Your task to perform on an android device: Go to CNN.com Image 0: 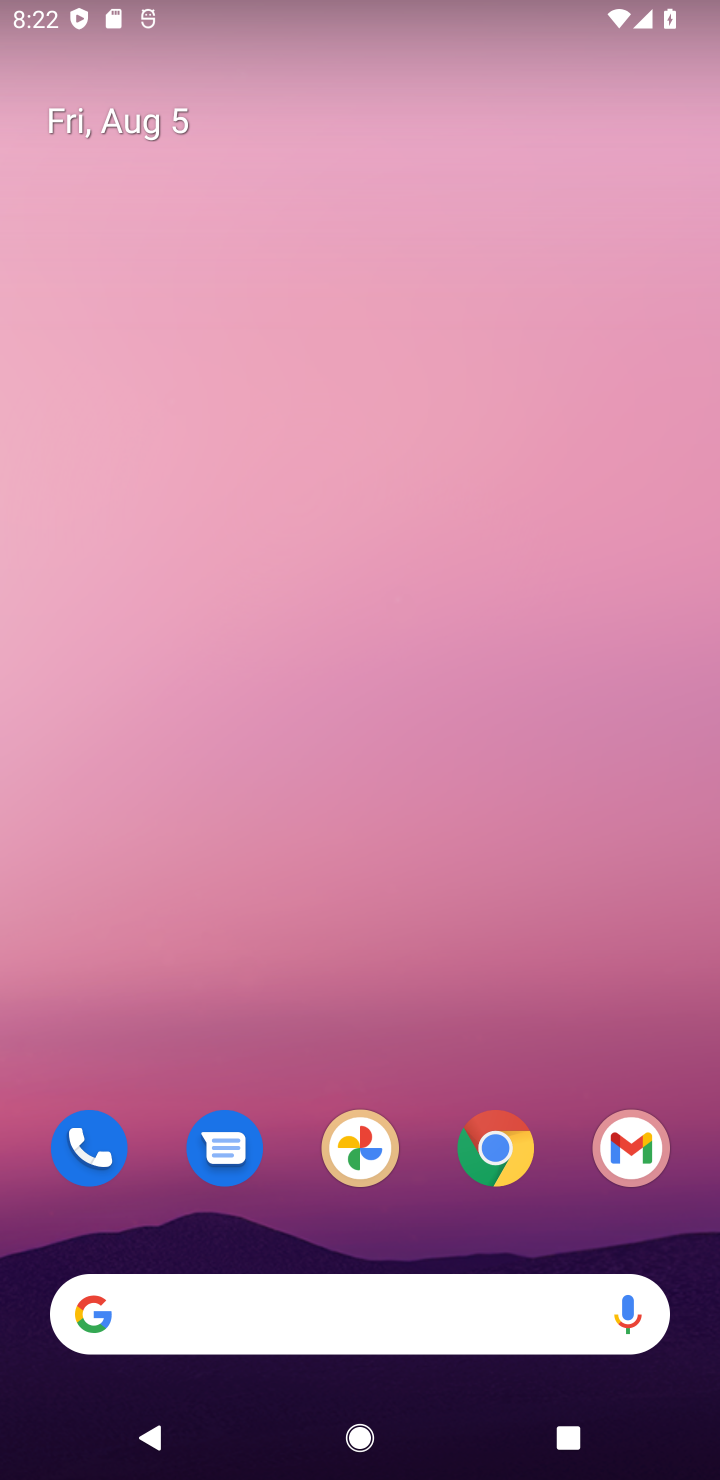
Step 0: drag from (420, 1252) to (421, 216)
Your task to perform on an android device: Go to CNN.com Image 1: 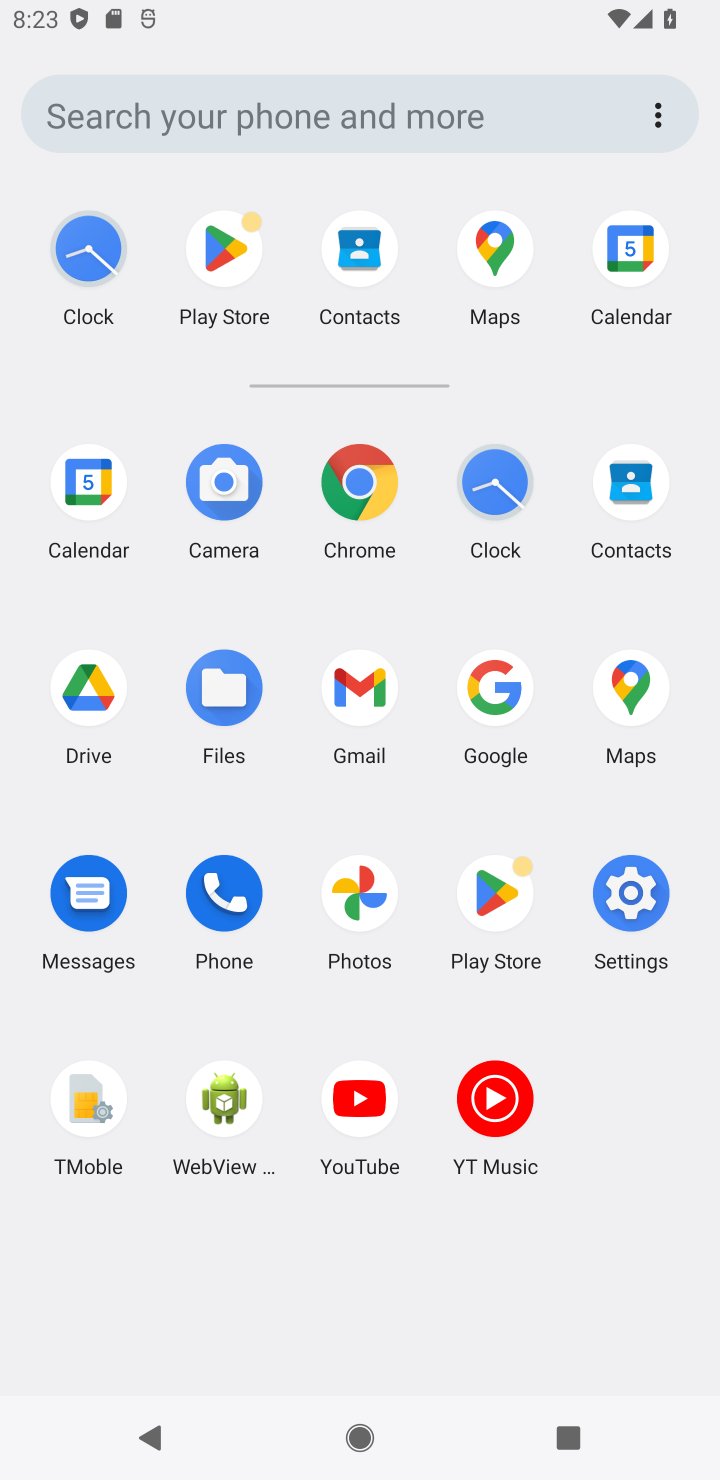
Step 1: click (374, 492)
Your task to perform on an android device: Go to CNN.com Image 2: 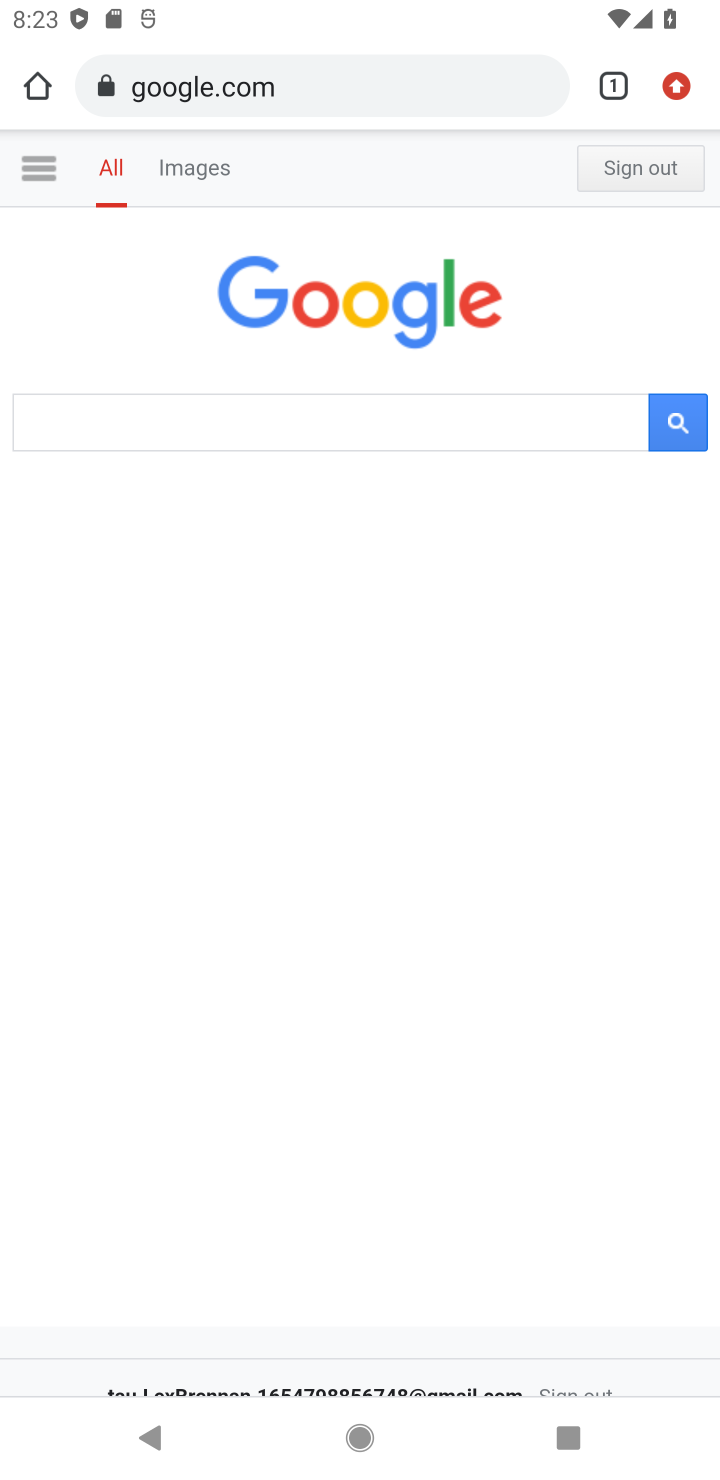
Step 2: click (374, 85)
Your task to perform on an android device: Go to CNN.com Image 3: 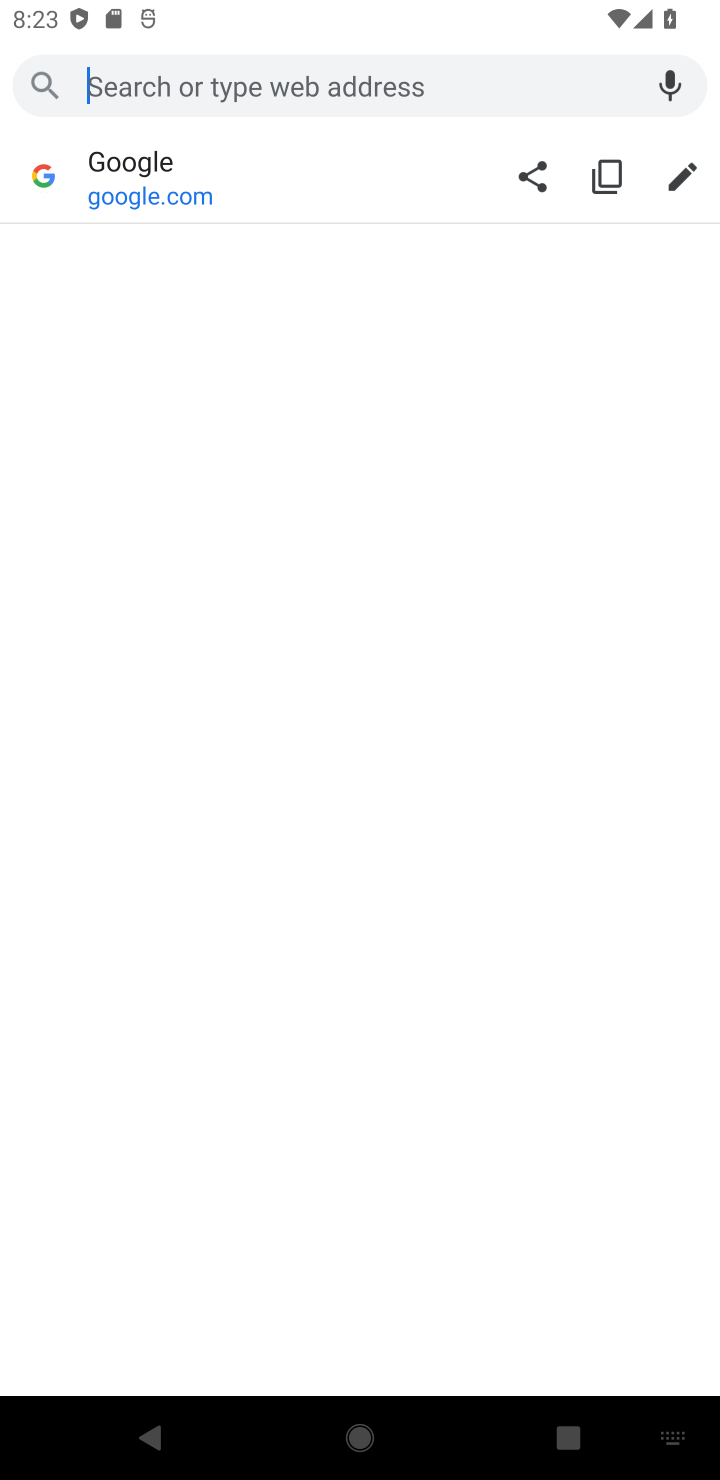
Step 3: type "cnn.com"
Your task to perform on an android device: Go to CNN.com Image 4: 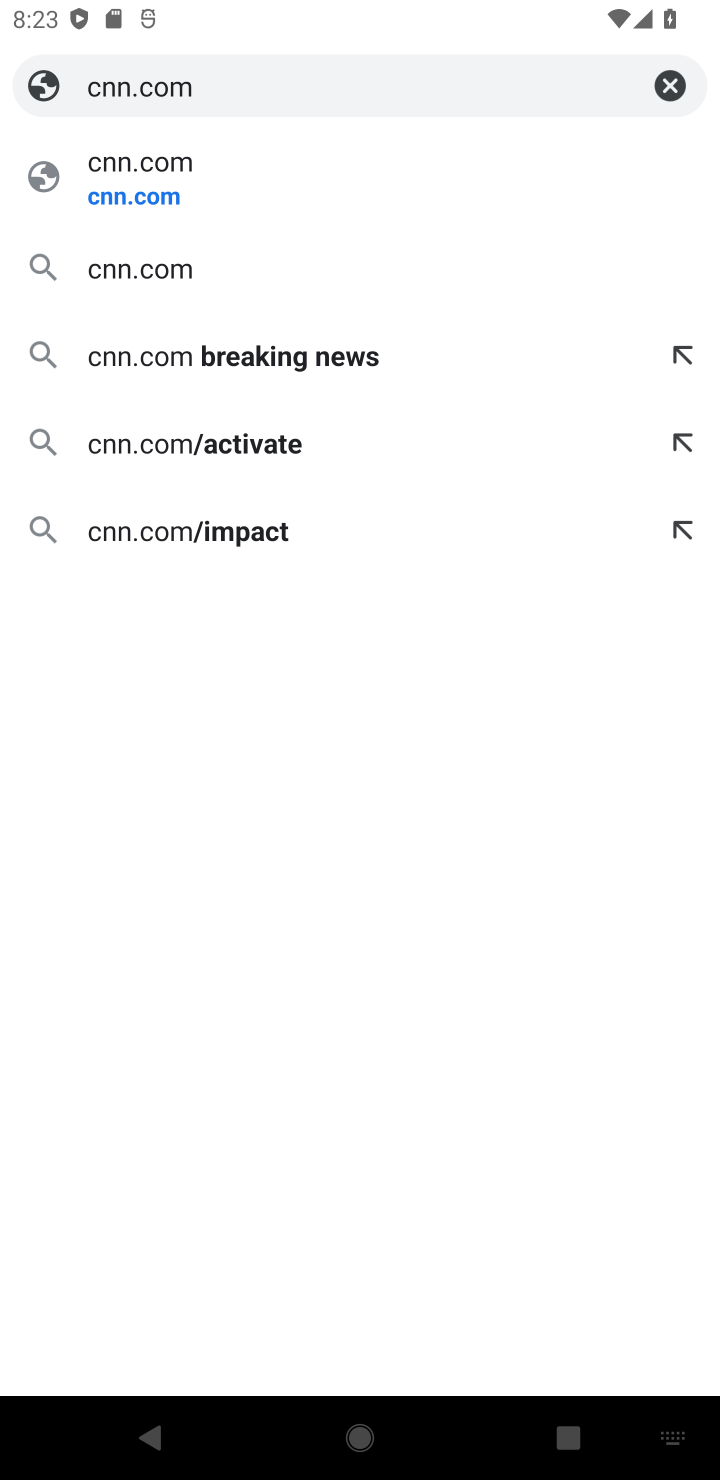
Step 4: click (184, 177)
Your task to perform on an android device: Go to CNN.com Image 5: 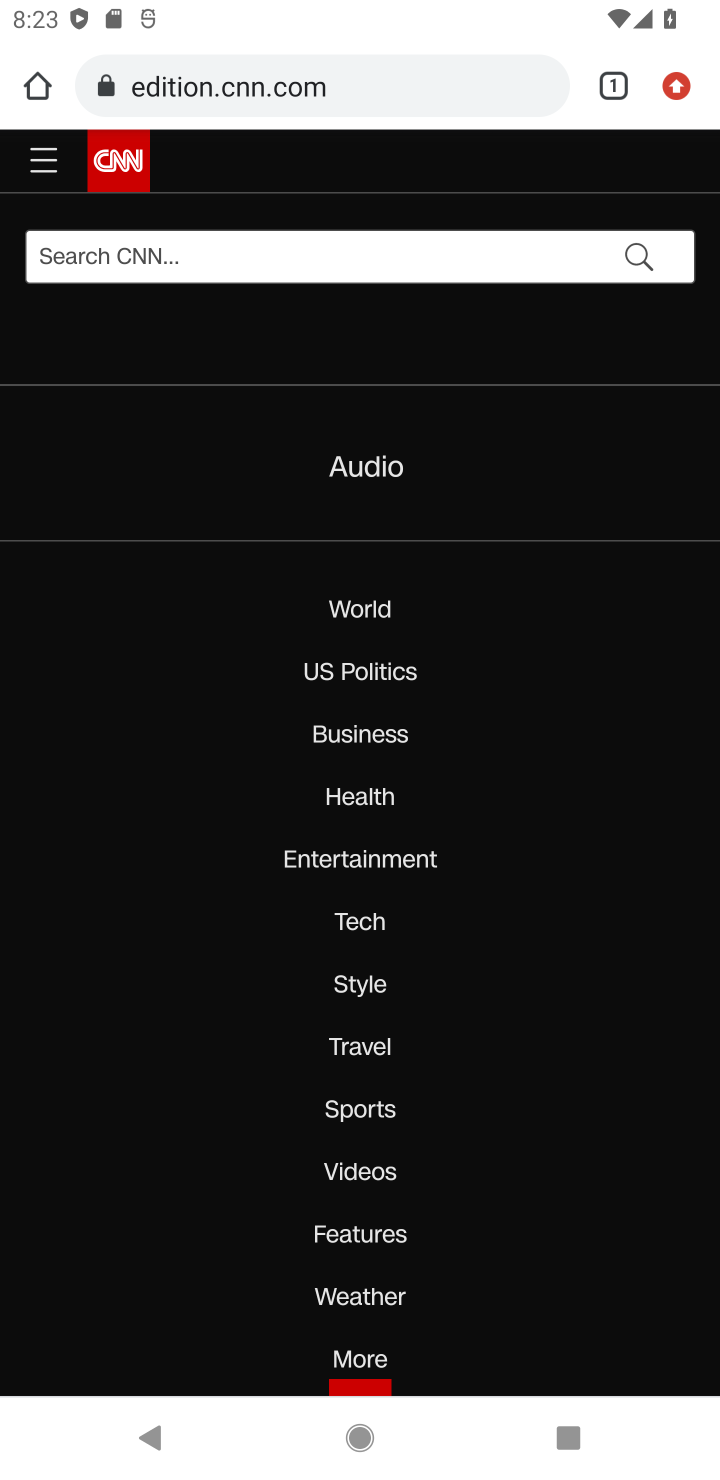
Step 5: task complete